Your task to perform on an android device: open app "Truecaller" (install if not already installed) Image 0: 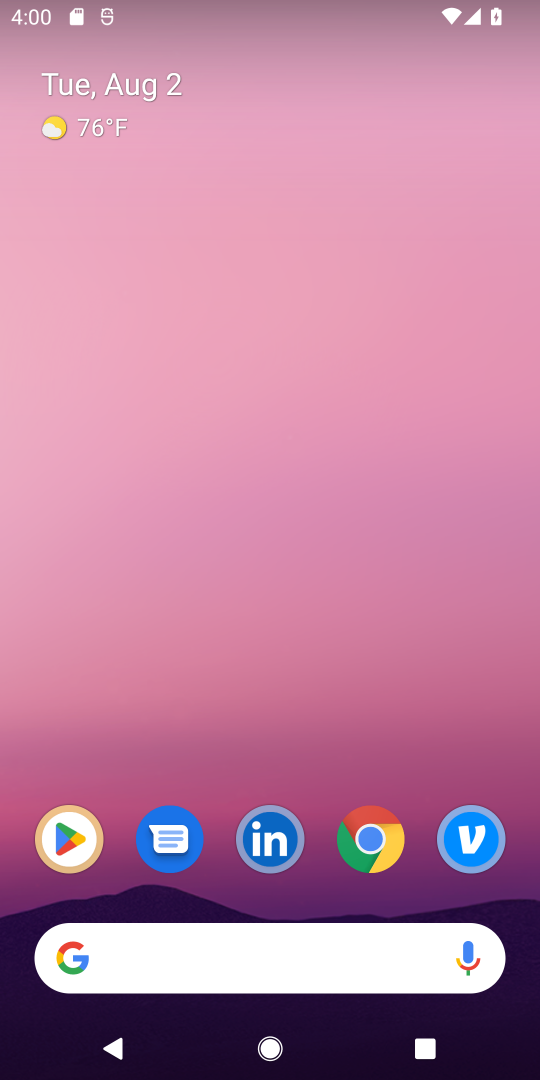
Step 0: click (84, 846)
Your task to perform on an android device: open app "Truecaller" (install if not already installed) Image 1: 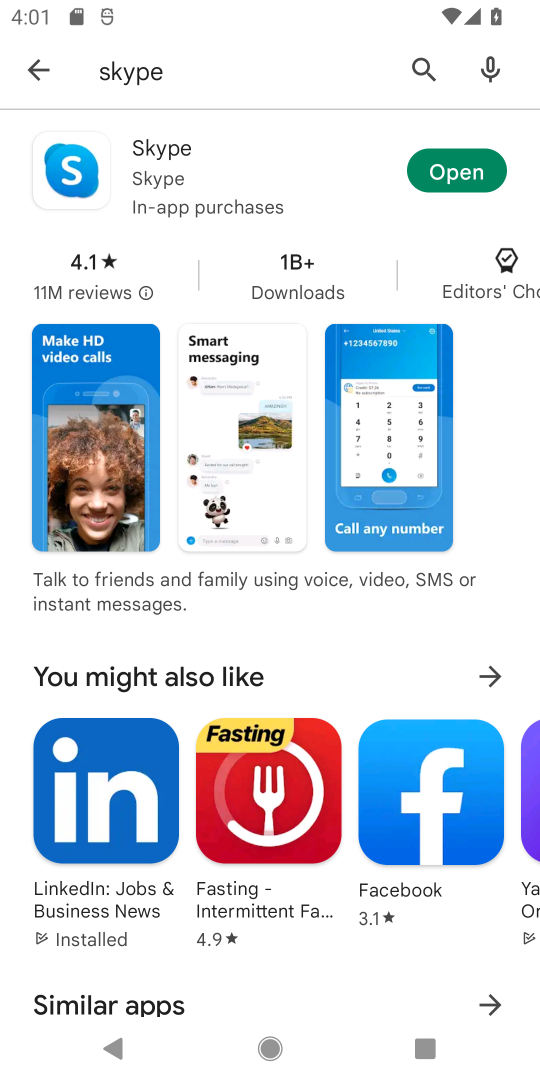
Step 1: click (411, 89)
Your task to perform on an android device: open app "Truecaller" (install if not already installed) Image 2: 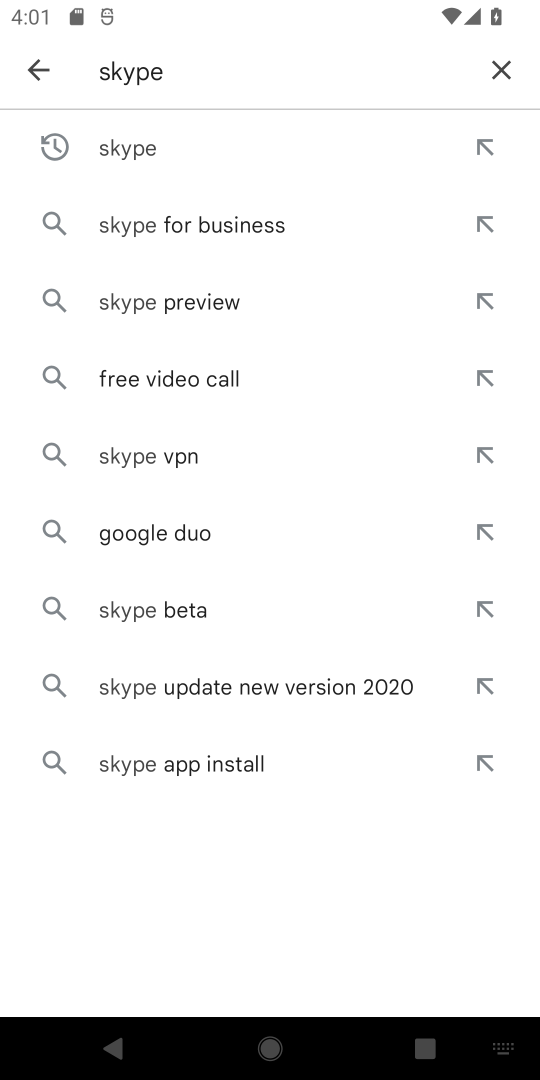
Step 2: click (494, 86)
Your task to perform on an android device: open app "Truecaller" (install if not already installed) Image 3: 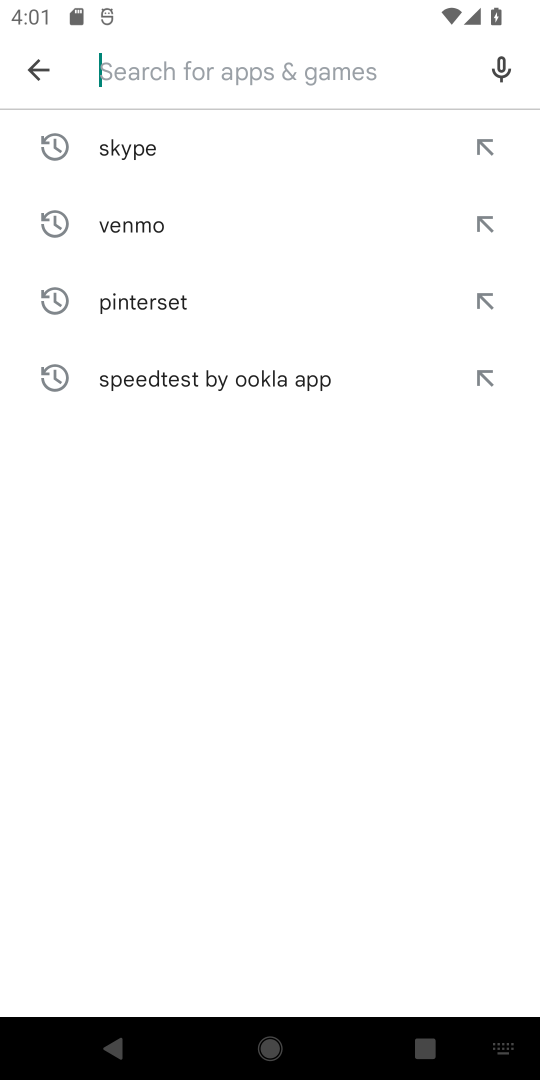
Step 3: type "truecaller"
Your task to perform on an android device: open app "Truecaller" (install if not already installed) Image 4: 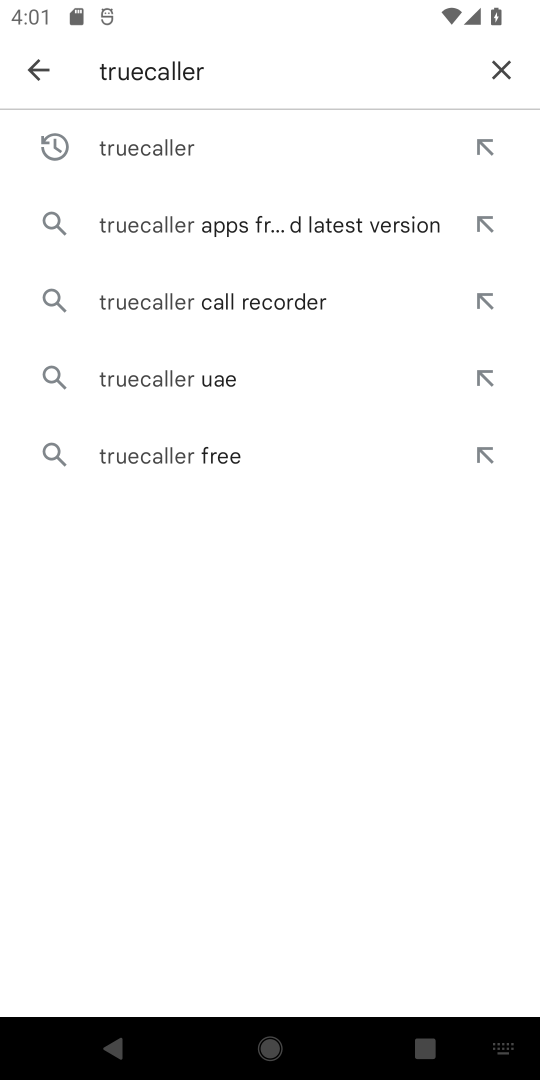
Step 4: click (307, 163)
Your task to perform on an android device: open app "Truecaller" (install if not already installed) Image 5: 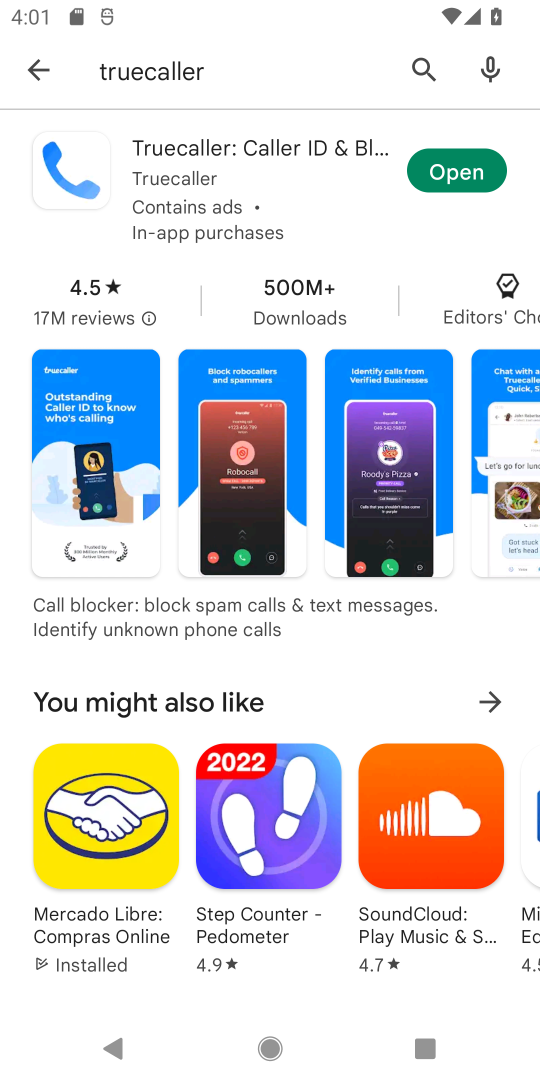
Step 5: click (495, 170)
Your task to perform on an android device: open app "Truecaller" (install if not already installed) Image 6: 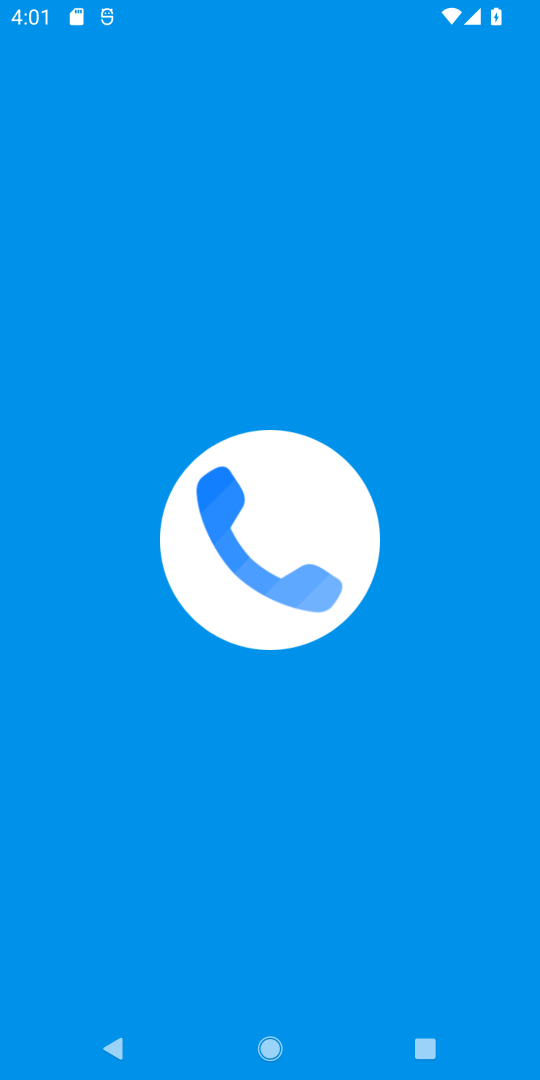
Step 6: task complete